Your task to perform on an android device: Do I have any events this weekend? Image 0: 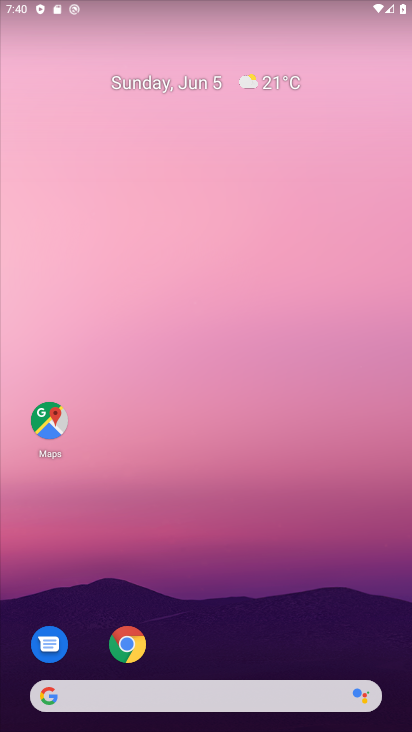
Step 0: drag from (223, 658) to (244, 127)
Your task to perform on an android device: Do I have any events this weekend? Image 1: 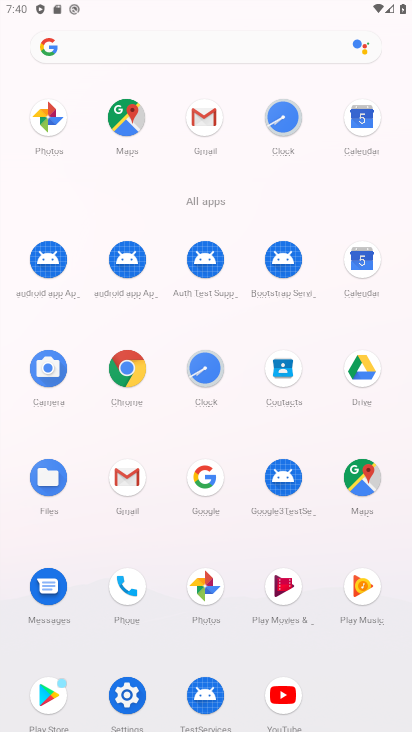
Step 1: click (362, 291)
Your task to perform on an android device: Do I have any events this weekend? Image 2: 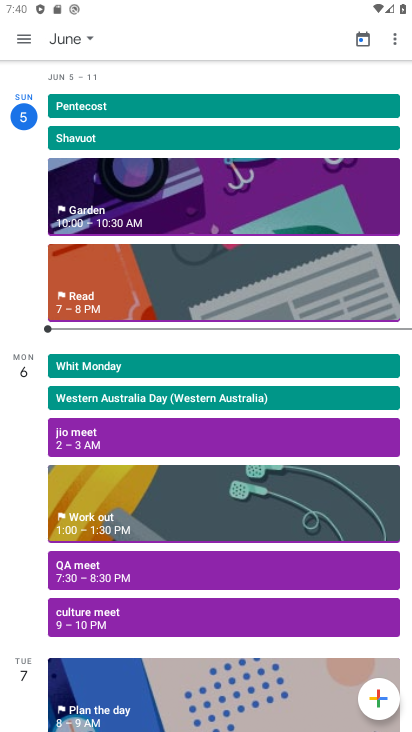
Step 2: task complete